Your task to perform on an android device: Search for sushi restaurants on Maps Image 0: 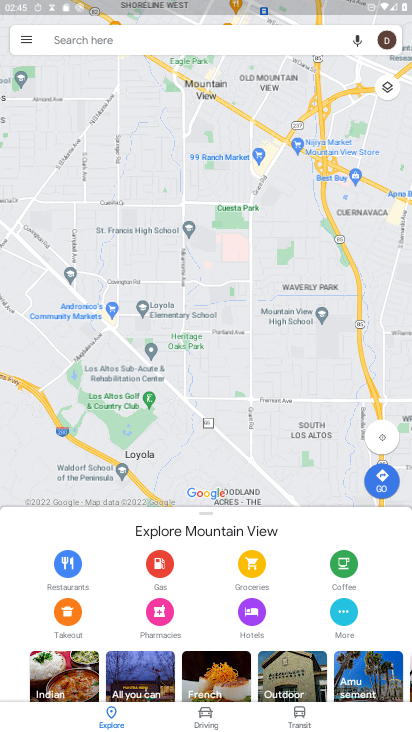
Step 0: click (155, 184)
Your task to perform on an android device: Search for sushi restaurants on Maps Image 1: 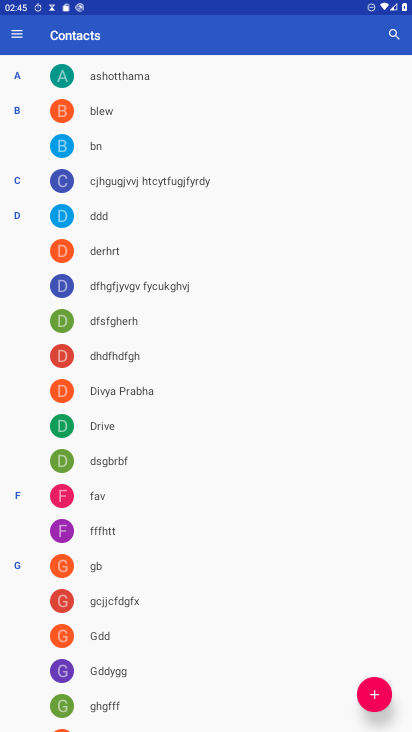
Step 1: press home button
Your task to perform on an android device: Search for sushi restaurants on Maps Image 2: 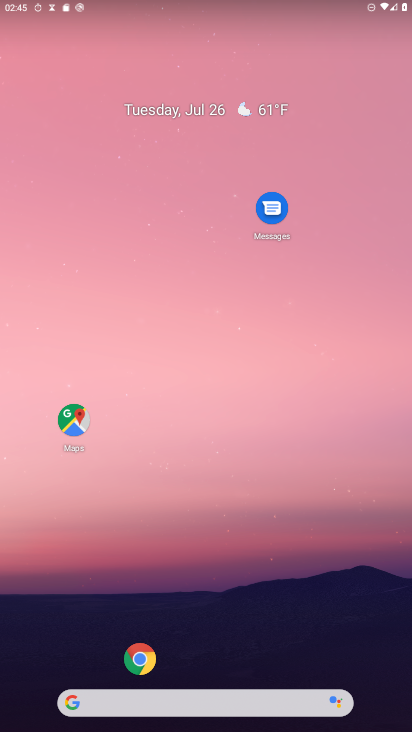
Step 2: click (68, 412)
Your task to perform on an android device: Search for sushi restaurants on Maps Image 3: 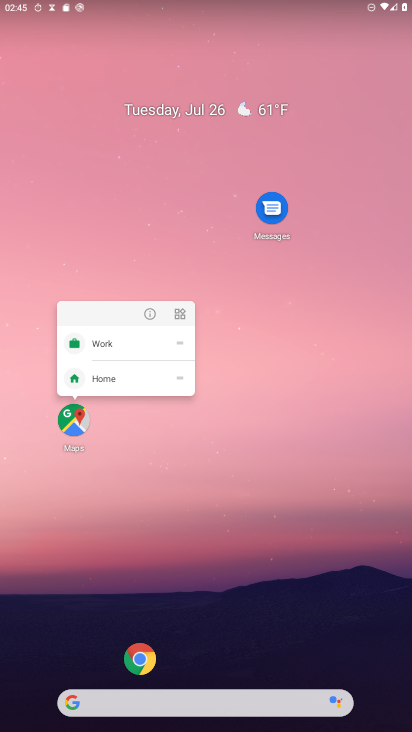
Step 3: click (63, 428)
Your task to perform on an android device: Search for sushi restaurants on Maps Image 4: 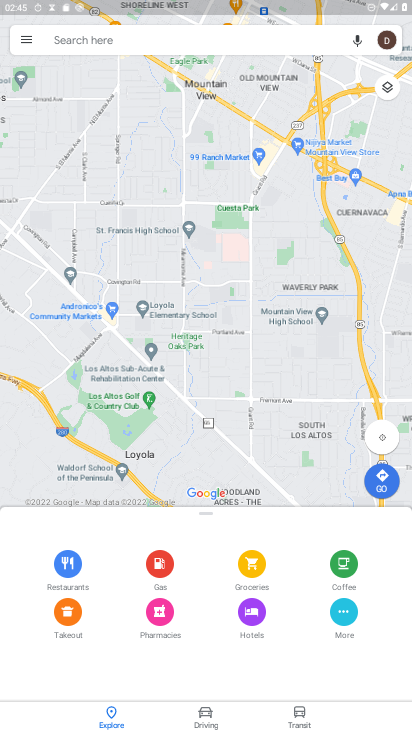
Step 4: click (77, 42)
Your task to perform on an android device: Search for sushi restaurants on Maps Image 5: 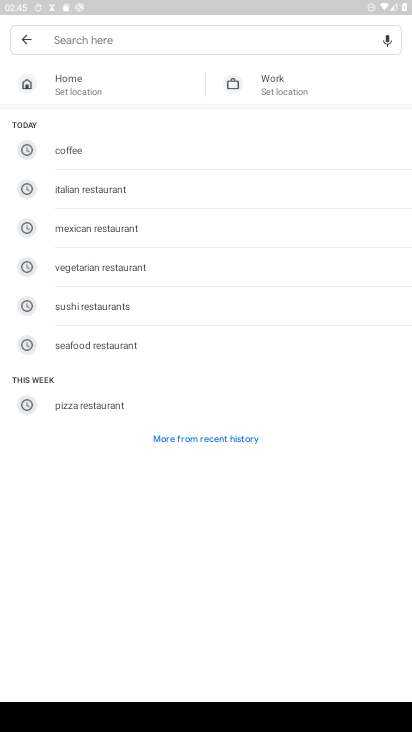
Step 5: click (110, 311)
Your task to perform on an android device: Search for sushi restaurants on Maps Image 6: 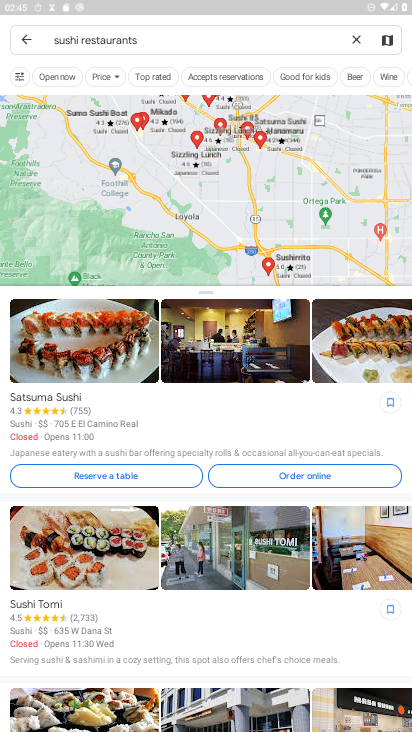
Step 6: task complete